Your task to perform on an android device: change the clock display to analog Image 0: 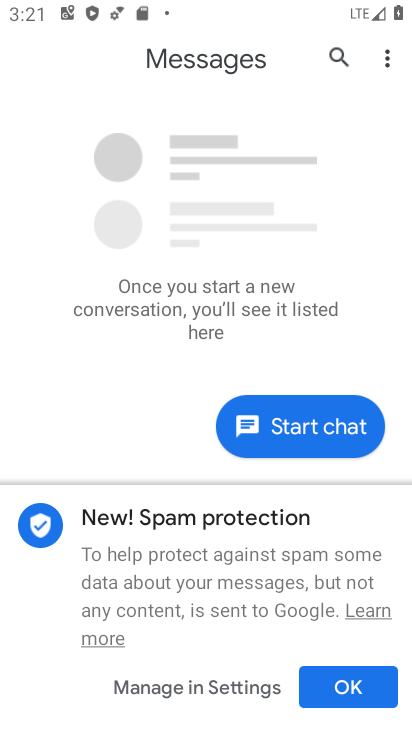
Step 0: press home button
Your task to perform on an android device: change the clock display to analog Image 1: 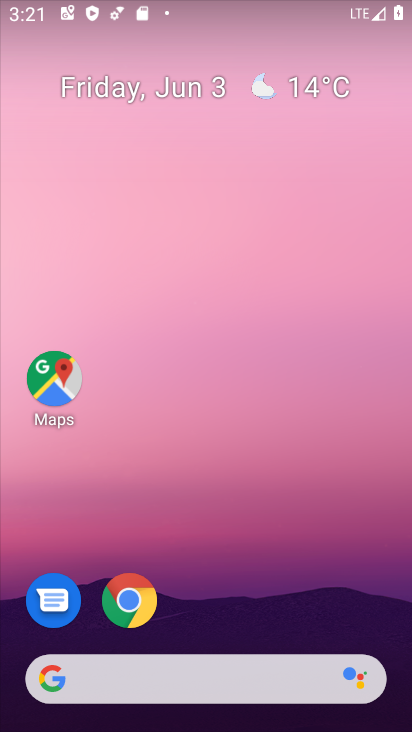
Step 1: drag from (333, 618) to (329, 206)
Your task to perform on an android device: change the clock display to analog Image 2: 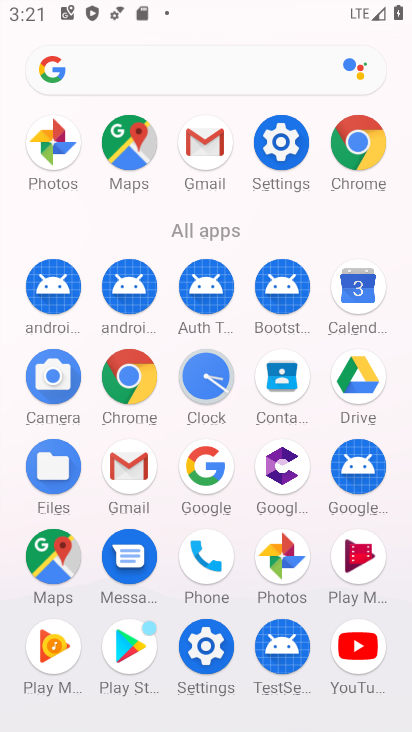
Step 2: click (221, 378)
Your task to perform on an android device: change the clock display to analog Image 3: 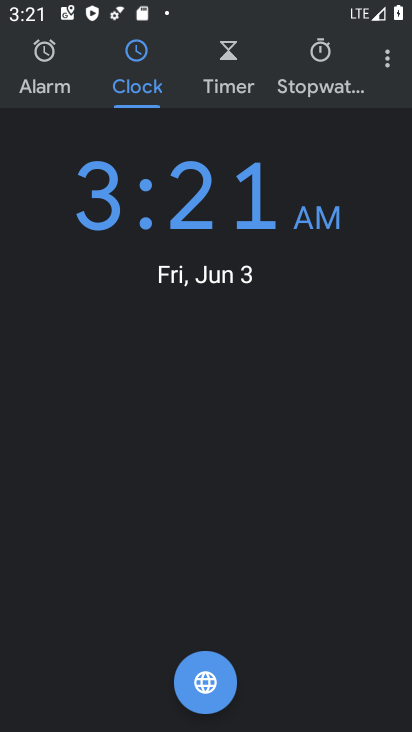
Step 3: click (395, 43)
Your task to perform on an android device: change the clock display to analog Image 4: 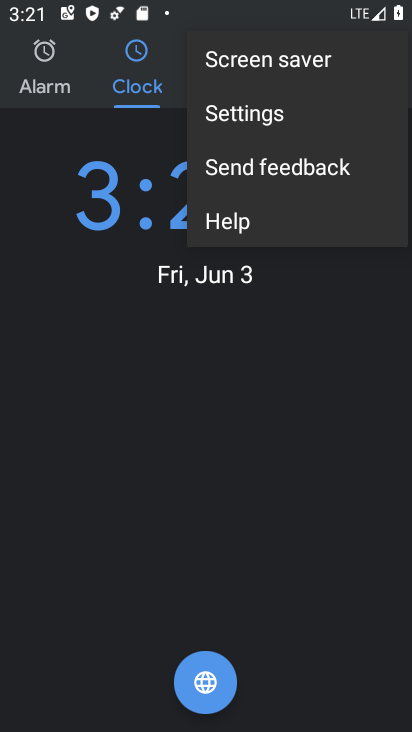
Step 4: click (320, 113)
Your task to perform on an android device: change the clock display to analog Image 5: 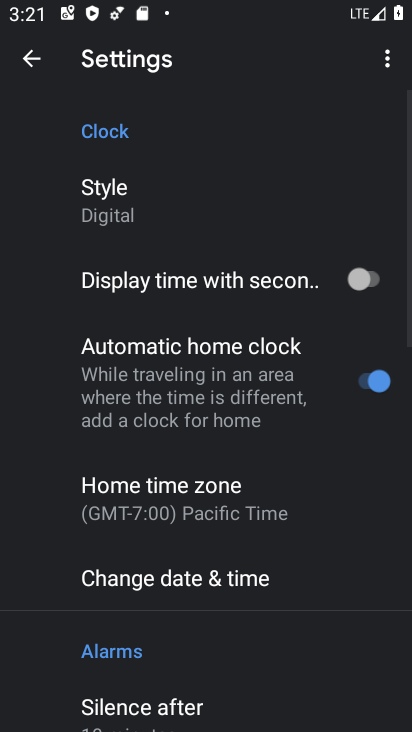
Step 5: click (295, 179)
Your task to perform on an android device: change the clock display to analog Image 6: 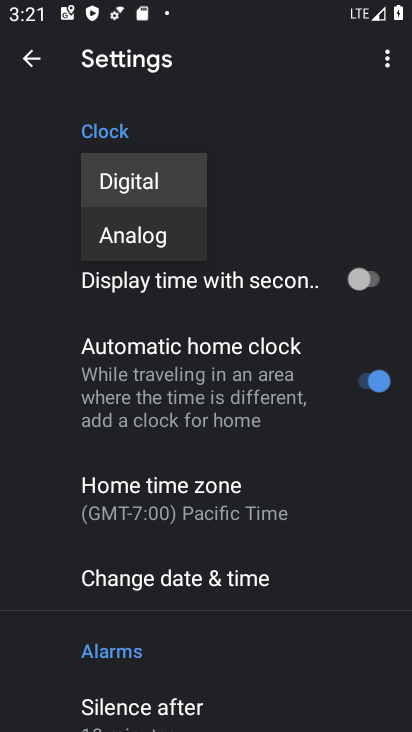
Step 6: click (186, 237)
Your task to perform on an android device: change the clock display to analog Image 7: 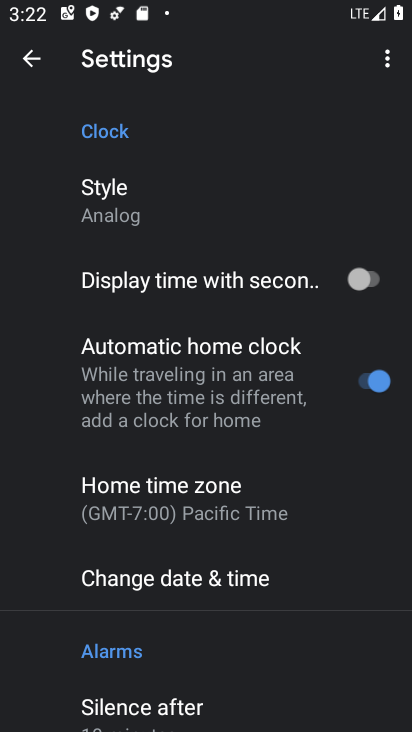
Step 7: task complete